Your task to perform on an android device: change the upload size in google photos Image 0: 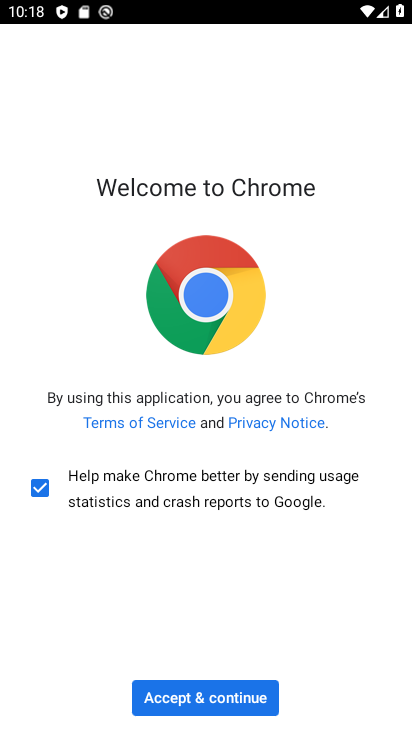
Step 0: task complete